Your task to perform on an android device: change the clock style Image 0: 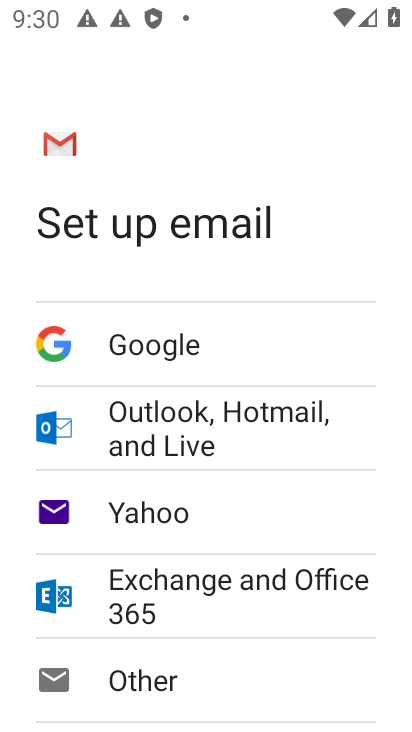
Step 0: press home button
Your task to perform on an android device: change the clock style Image 1: 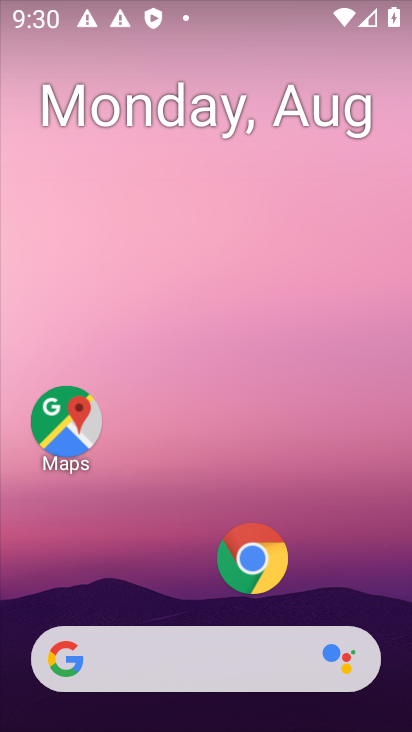
Step 1: drag from (198, 565) to (188, 109)
Your task to perform on an android device: change the clock style Image 2: 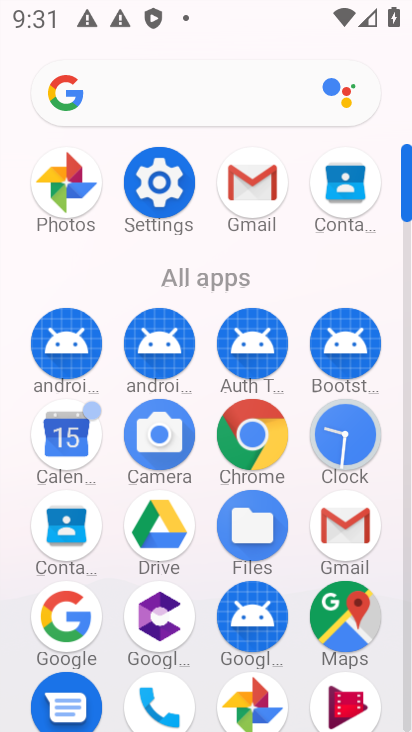
Step 2: click (342, 425)
Your task to perform on an android device: change the clock style Image 3: 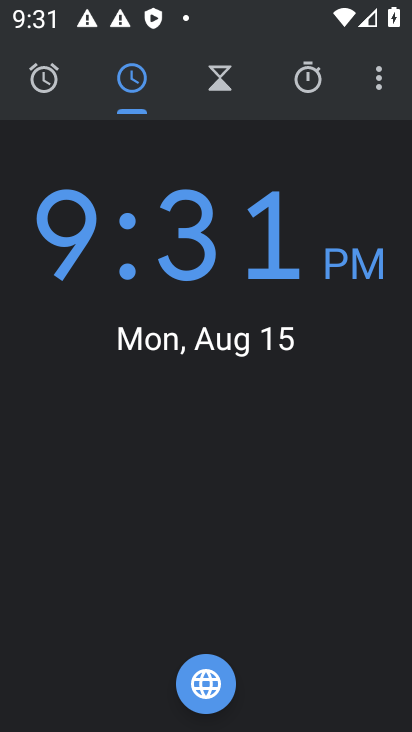
Step 3: click (377, 77)
Your task to perform on an android device: change the clock style Image 4: 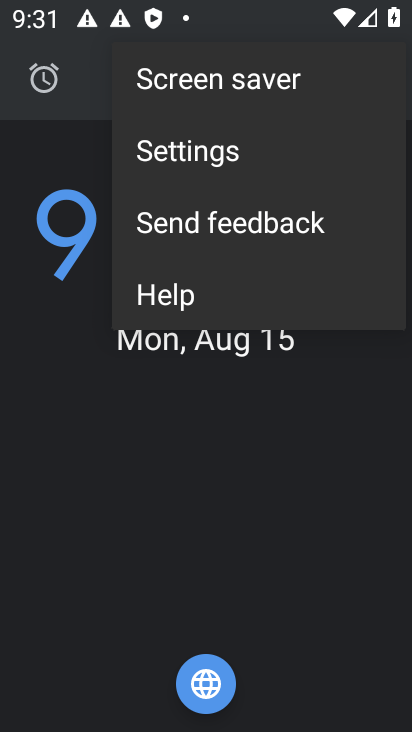
Step 4: click (251, 144)
Your task to perform on an android device: change the clock style Image 5: 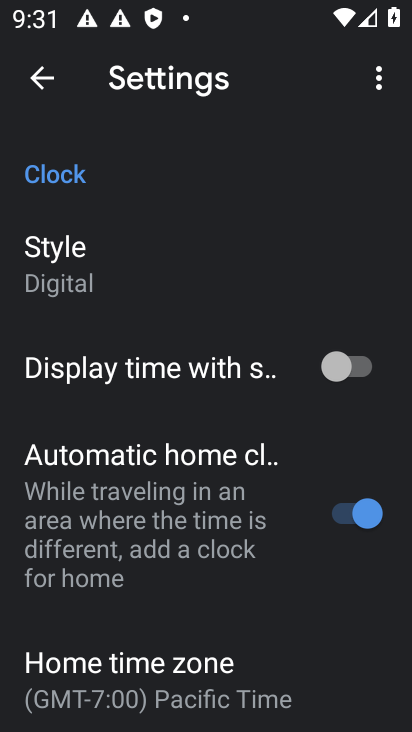
Step 5: click (102, 263)
Your task to perform on an android device: change the clock style Image 6: 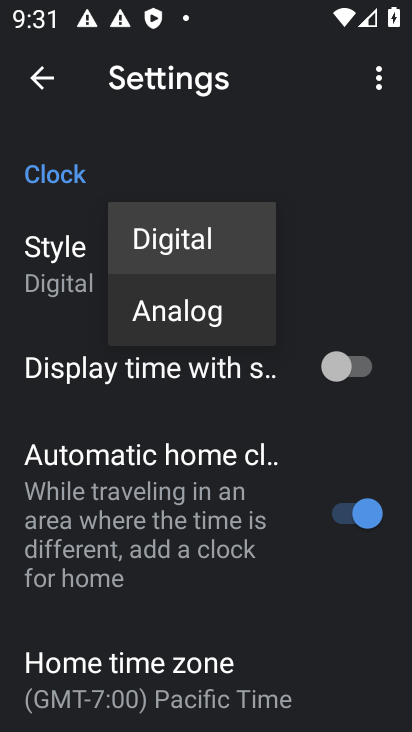
Step 6: click (141, 319)
Your task to perform on an android device: change the clock style Image 7: 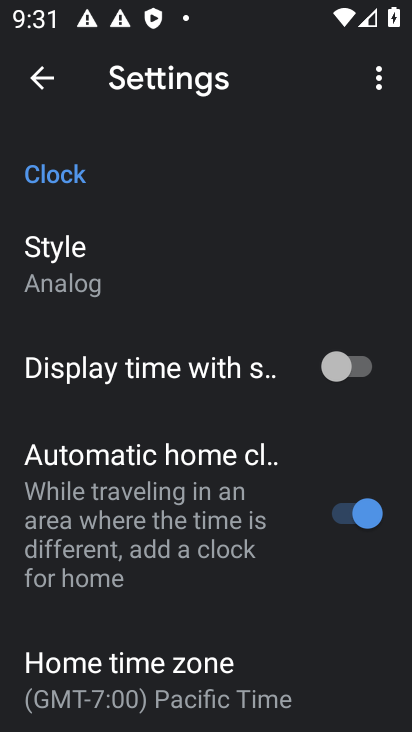
Step 7: task complete